Your task to perform on an android device: open app "Pluto TV - Live TV and Movies" (install if not already installed), go to login, and select forgot password Image 0: 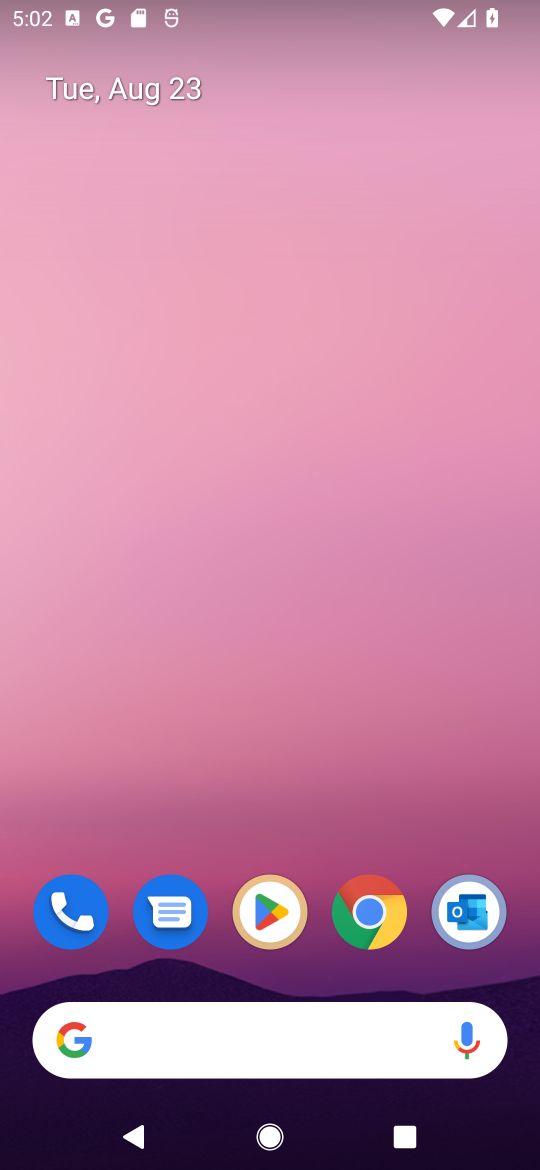
Step 0: drag from (202, 946) to (256, 383)
Your task to perform on an android device: open app "Pluto TV - Live TV and Movies" (install if not already installed), go to login, and select forgot password Image 1: 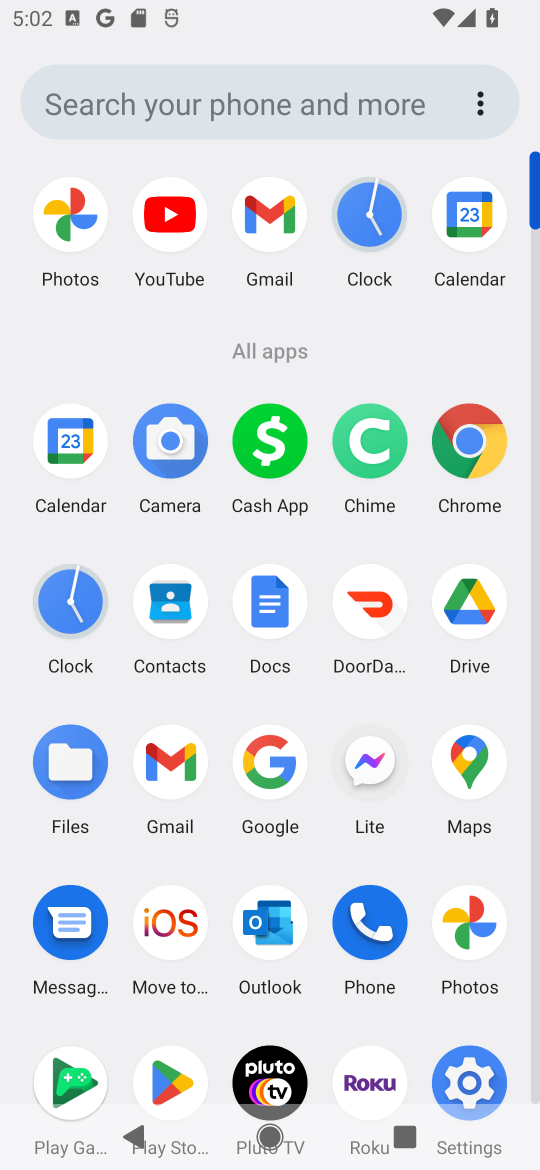
Step 1: click (150, 1060)
Your task to perform on an android device: open app "Pluto TV - Live TV and Movies" (install if not already installed), go to login, and select forgot password Image 2: 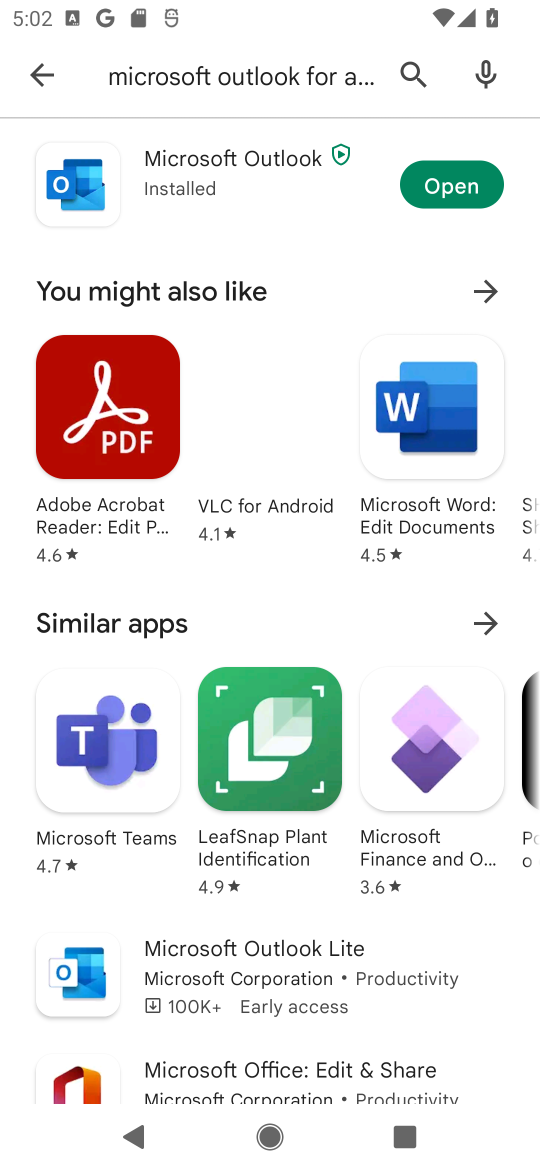
Step 2: click (48, 79)
Your task to perform on an android device: open app "Pluto TV - Live TV and Movies" (install if not already installed), go to login, and select forgot password Image 3: 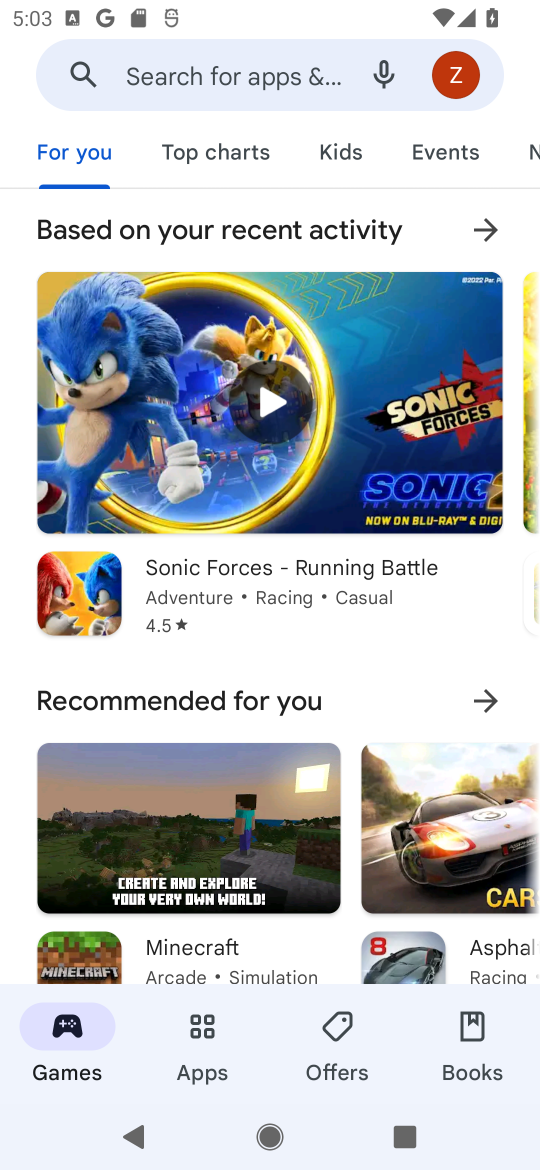
Step 3: click (152, 67)
Your task to perform on an android device: open app "Pluto TV - Live TV and Movies" (install if not already installed), go to login, and select forgot password Image 4: 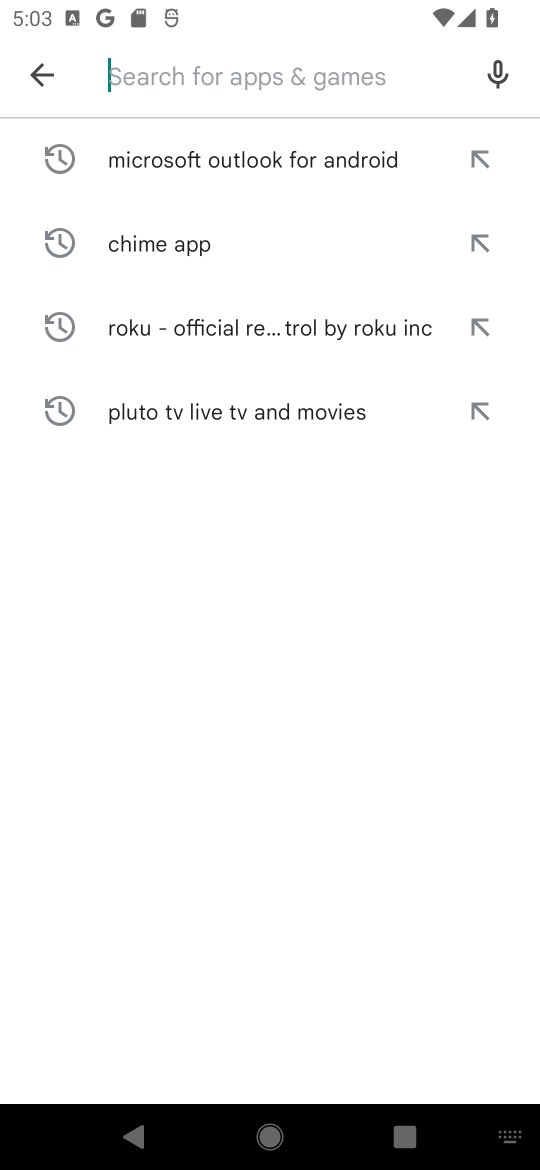
Step 4: type "Pluto TV - Live TV and Movies "
Your task to perform on an android device: open app "Pluto TV - Live TV and Movies" (install if not already installed), go to login, and select forgot password Image 5: 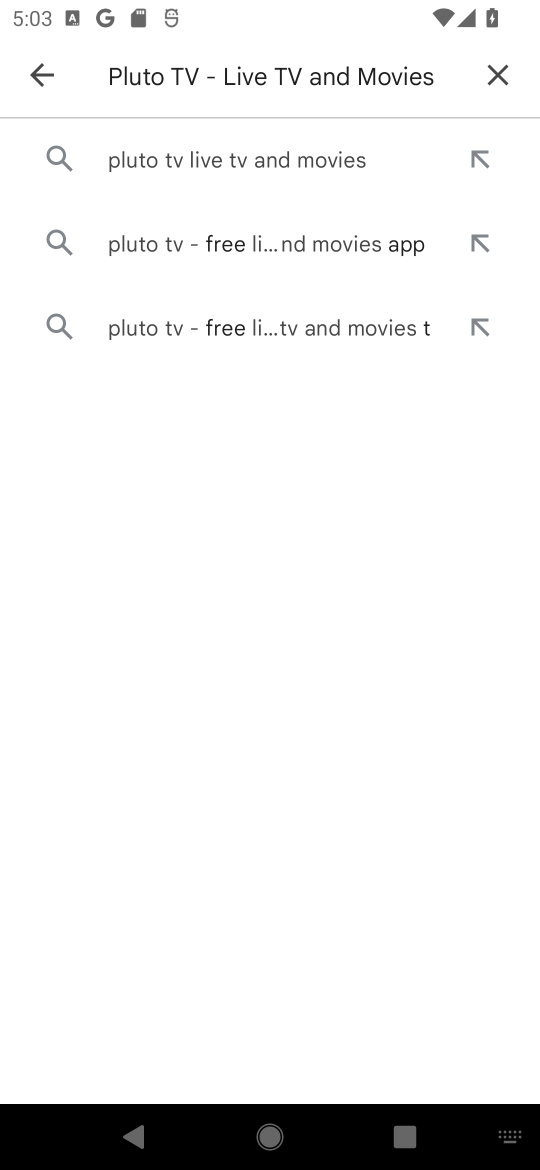
Step 5: click (209, 144)
Your task to perform on an android device: open app "Pluto TV - Live TV and Movies" (install if not already installed), go to login, and select forgot password Image 6: 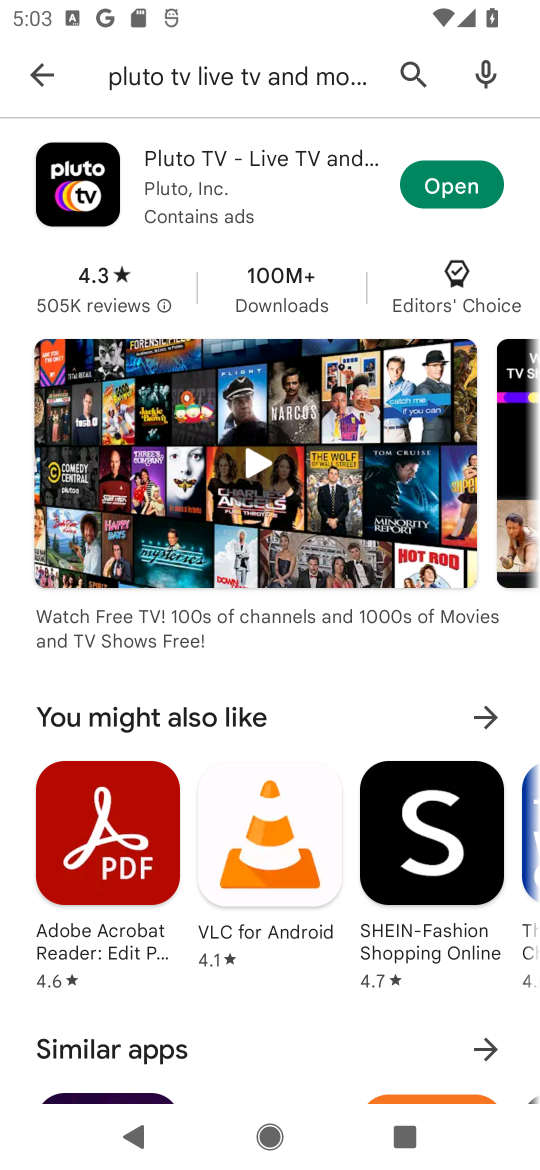
Step 6: click (421, 161)
Your task to perform on an android device: open app "Pluto TV - Live TV and Movies" (install if not already installed), go to login, and select forgot password Image 7: 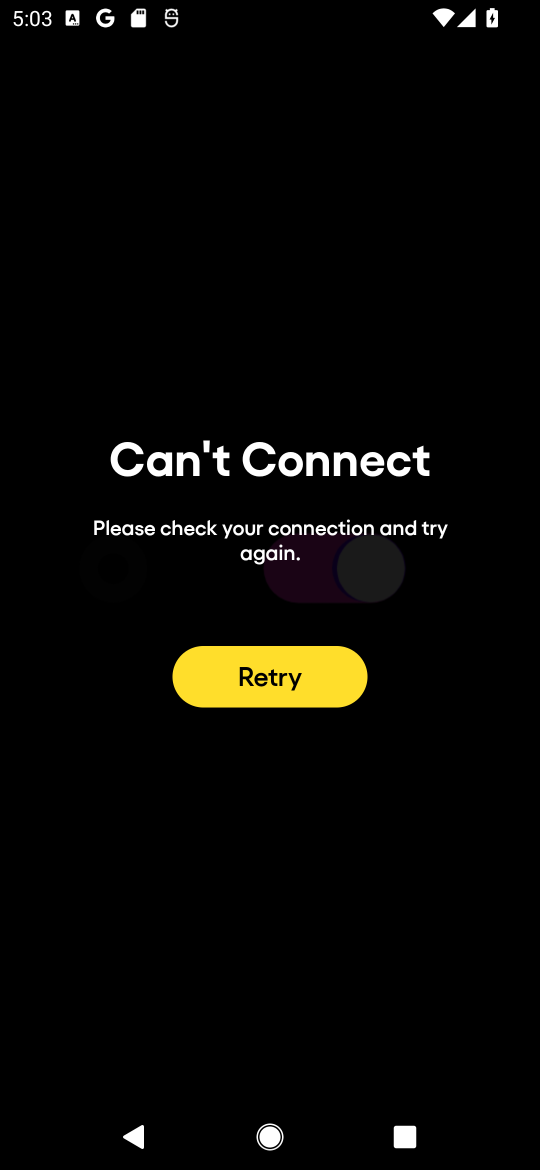
Step 7: task complete